Your task to perform on an android device: Clear all items from cart on amazon.com. Add razer blade to the cart on amazon.com Image 0: 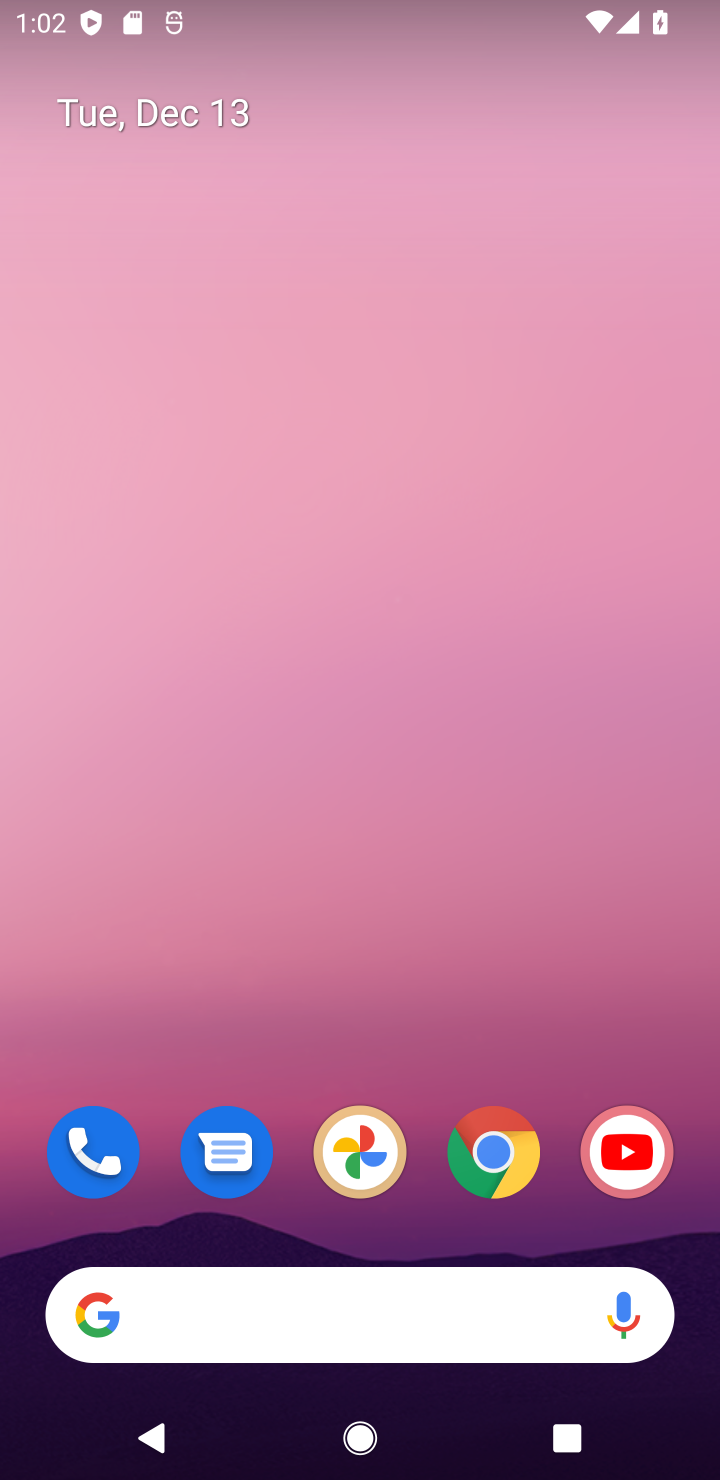
Step 0: drag from (408, 1289) to (501, 559)
Your task to perform on an android device: Clear all items from cart on amazon.com. Add razer blade to the cart on amazon.com Image 1: 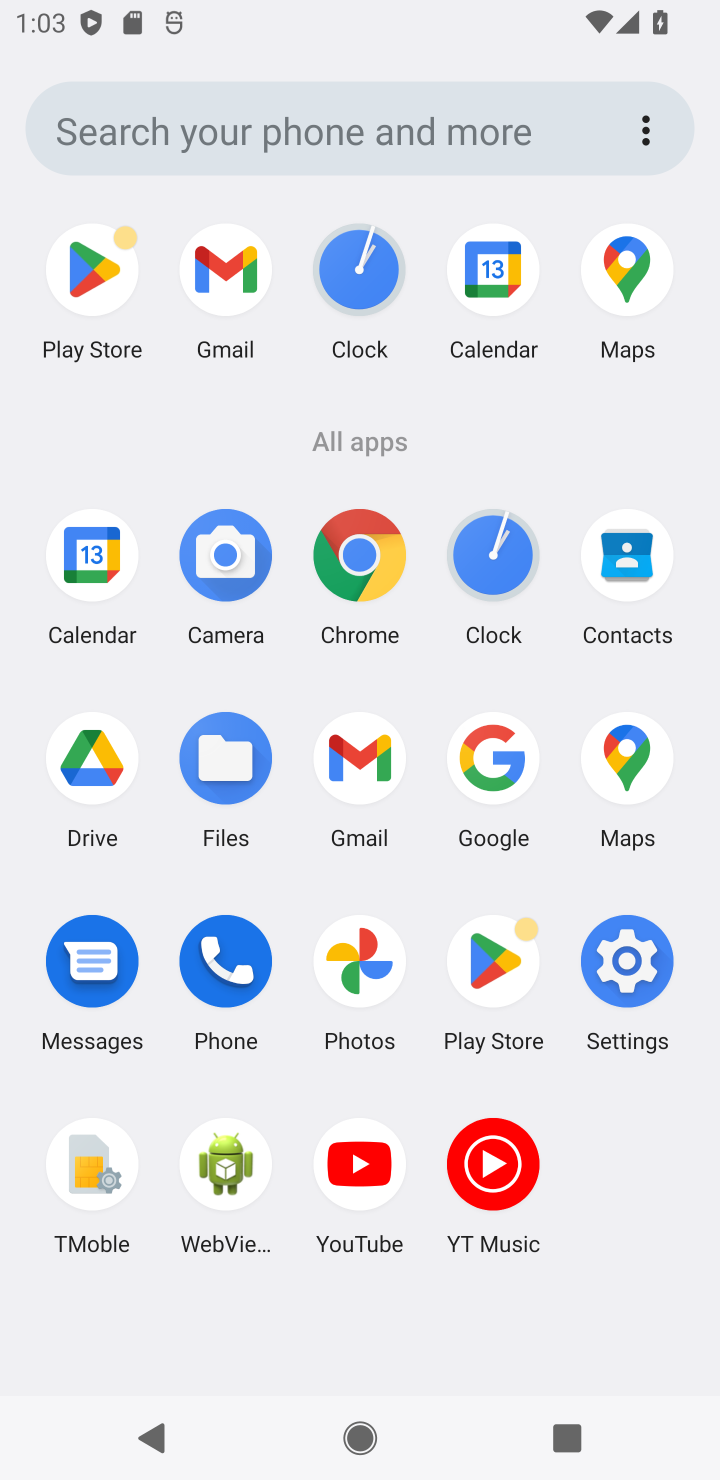
Step 1: click (499, 770)
Your task to perform on an android device: Clear all items from cart on amazon.com. Add razer blade to the cart on amazon.com Image 2: 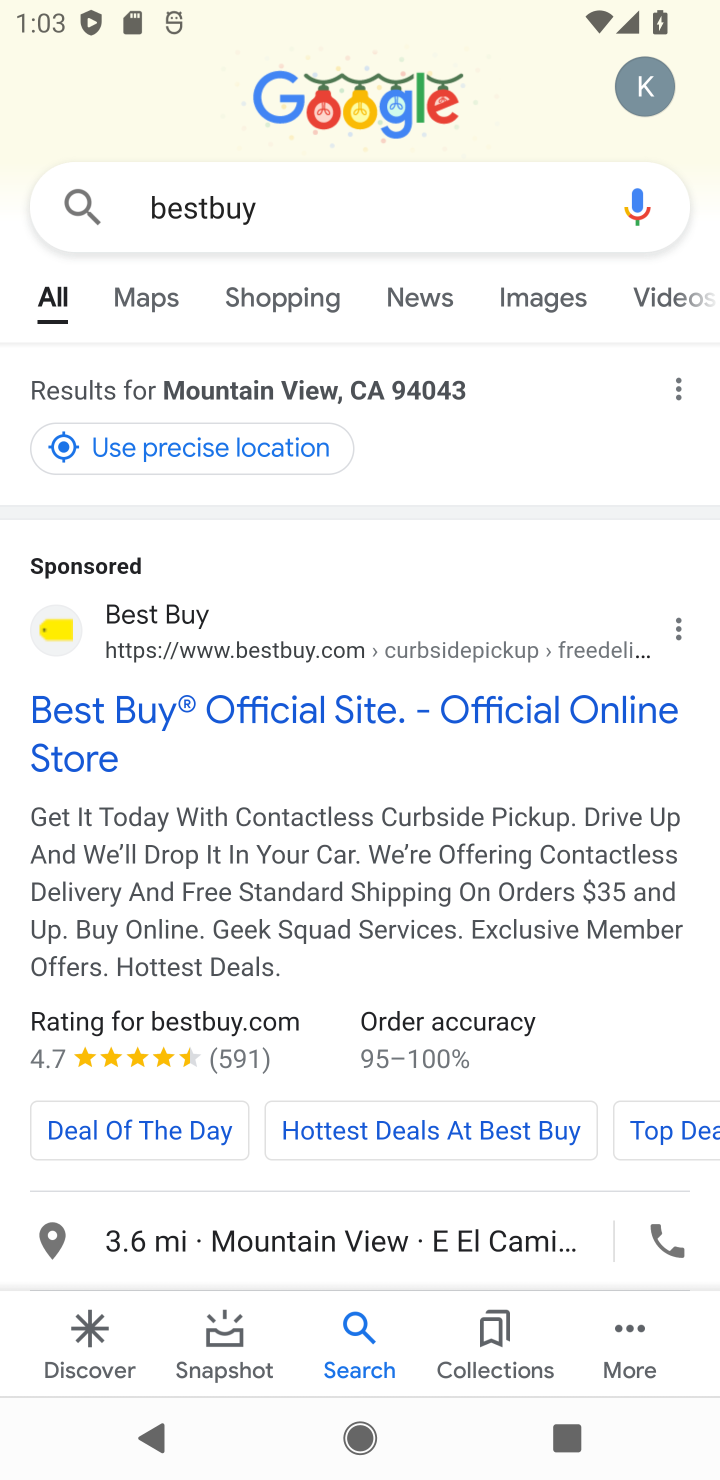
Step 2: click (218, 196)
Your task to perform on an android device: Clear all items from cart on amazon.com. Add razer blade to the cart on amazon.com Image 3: 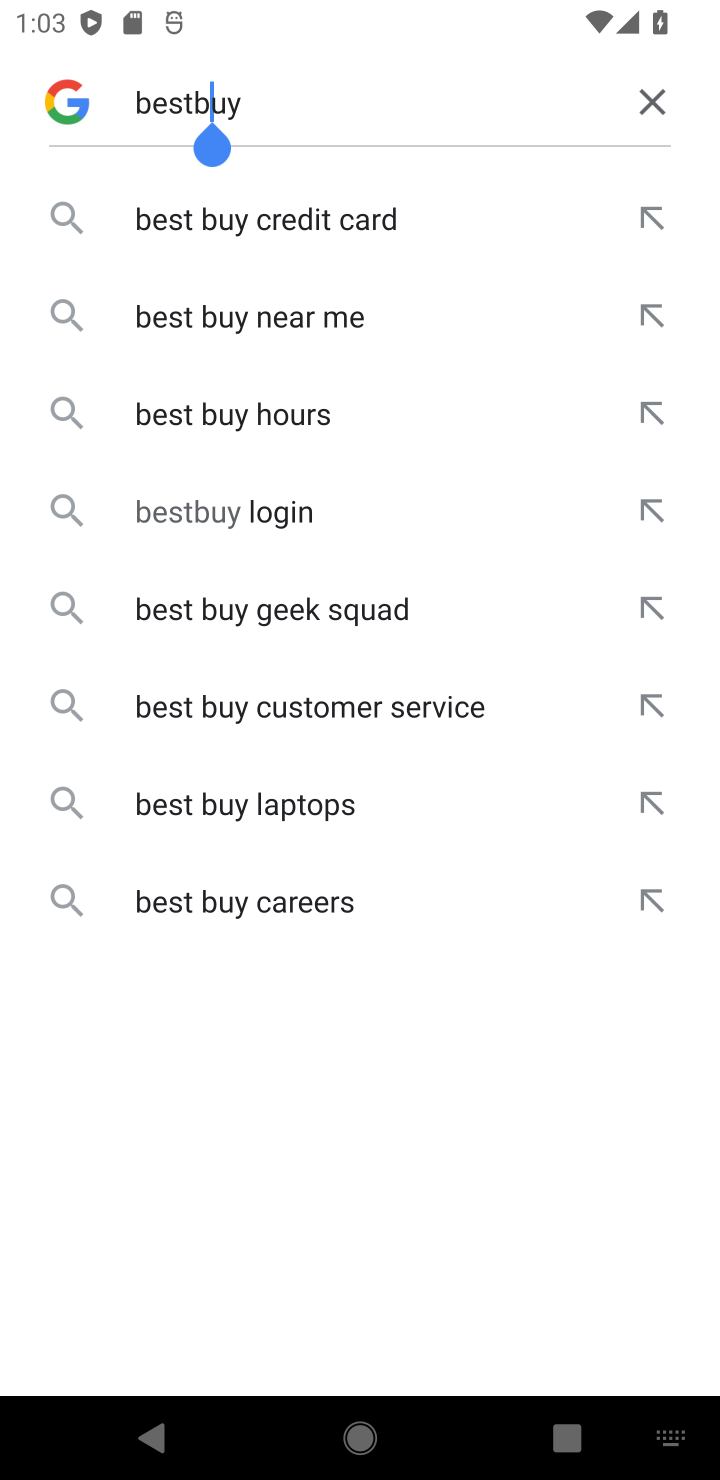
Step 3: click (647, 109)
Your task to perform on an android device: Clear all items from cart on amazon.com. Add razer blade to the cart on amazon.com Image 4: 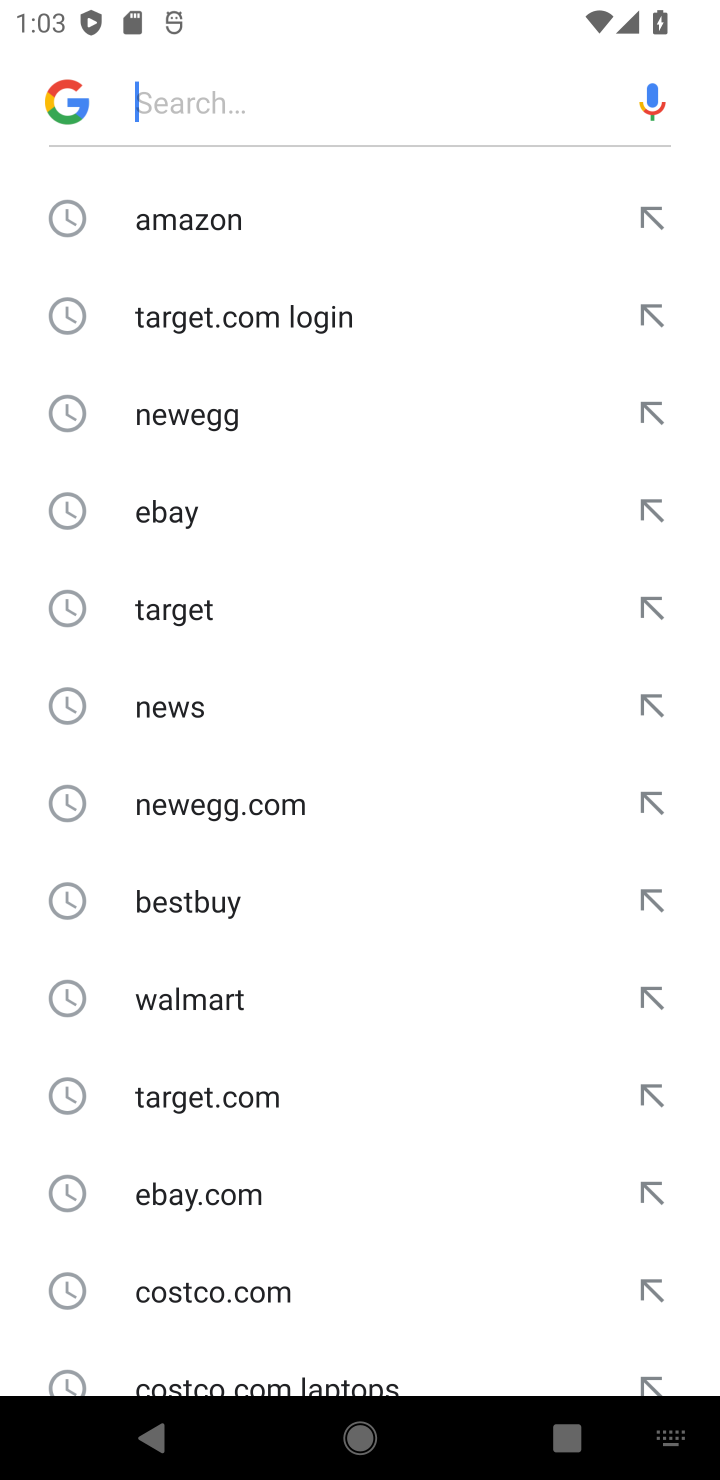
Step 4: click (171, 221)
Your task to perform on an android device: Clear all items from cart on amazon.com. Add razer blade to the cart on amazon.com Image 5: 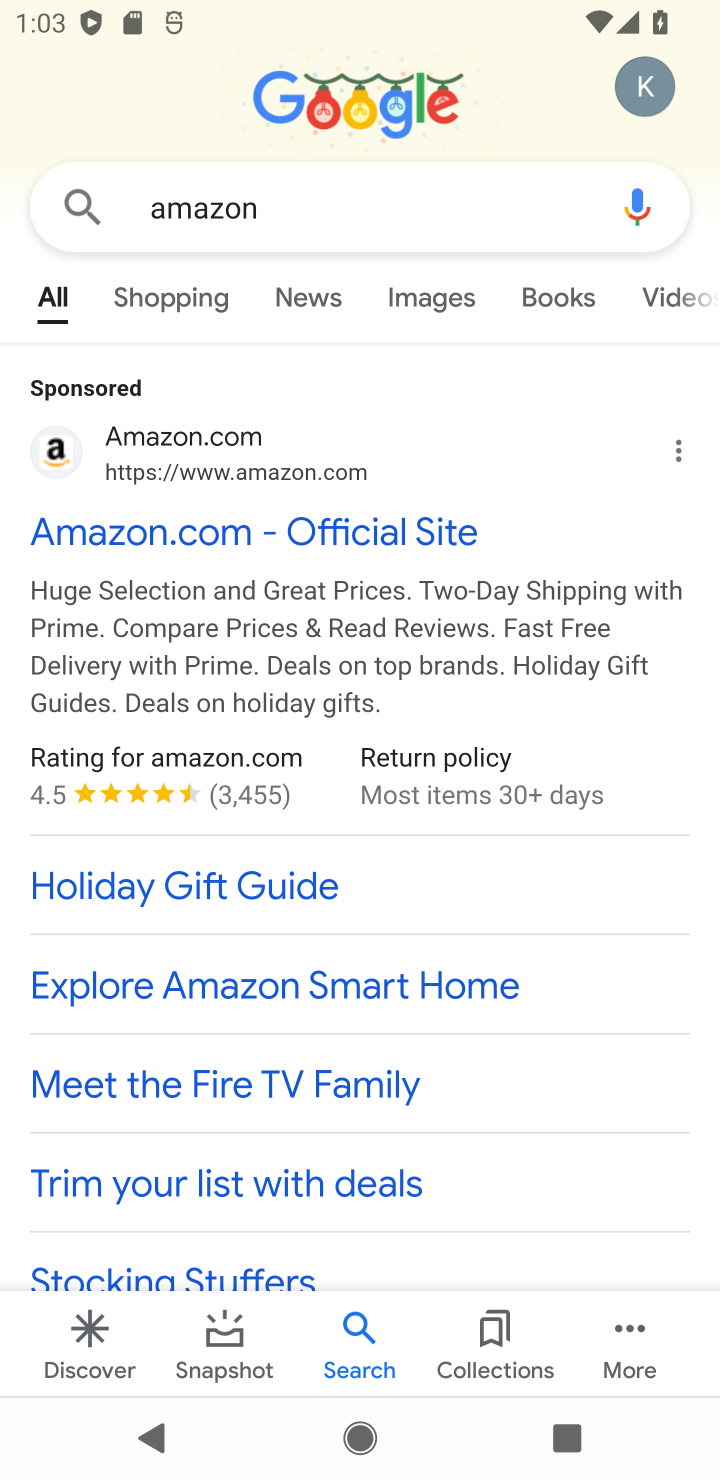
Step 5: click (181, 538)
Your task to perform on an android device: Clear all items from cart on amazon.com. Add razer blade to the cart on amazon.com Image 6: 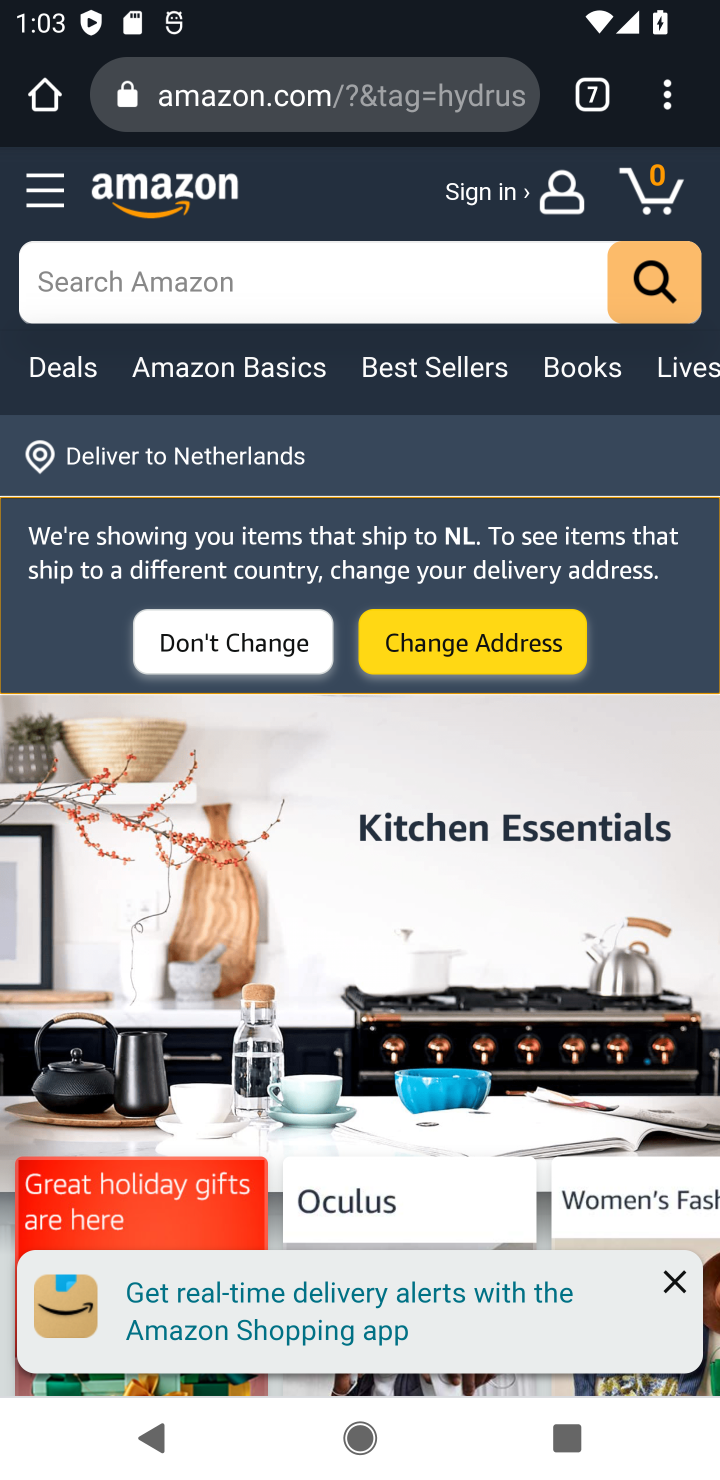
Step 6: click (315, 283)
Your task to perform on an android device: Clear all items from cart on amazon.com. Add razer blade to the cart on amazon.com Image 7: 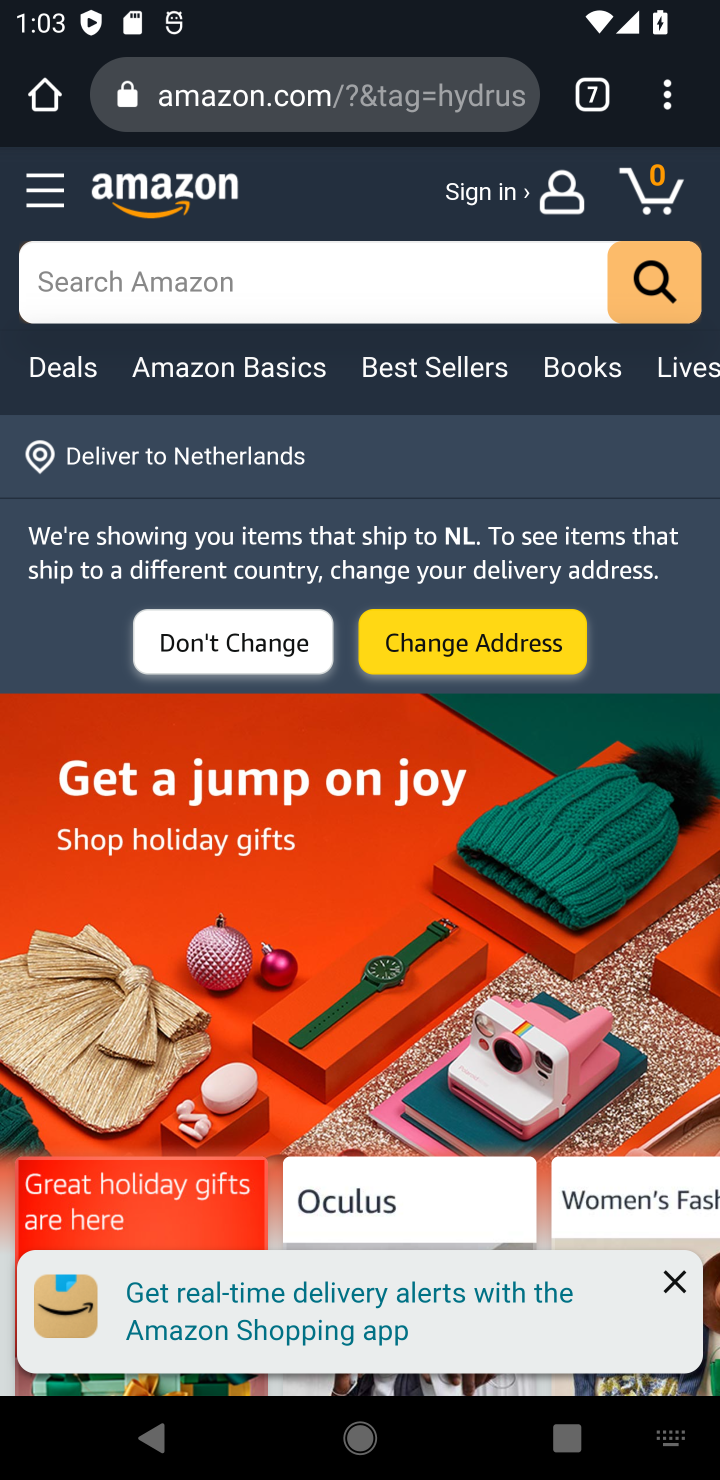
Step 7: type "razer blade"
Your task to perform on an android device: Clear all items from cart on amazon.com. Add razer blade to the cart on amazon.com Image 8: 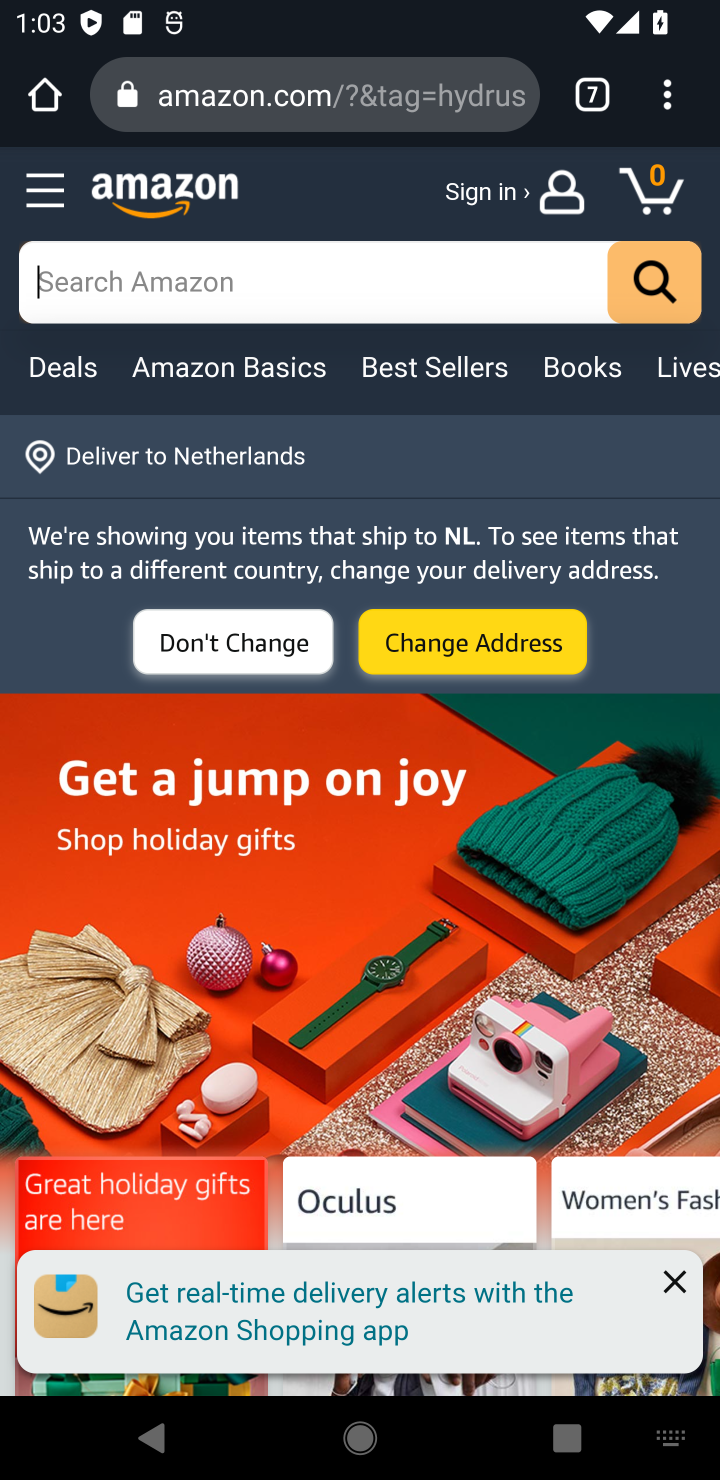
Step 8: click (681, 279)
Your task to perform on an android device: Clear all items from cart on amazon.com. Add razer blade to the cart on amazon.com Image 9: 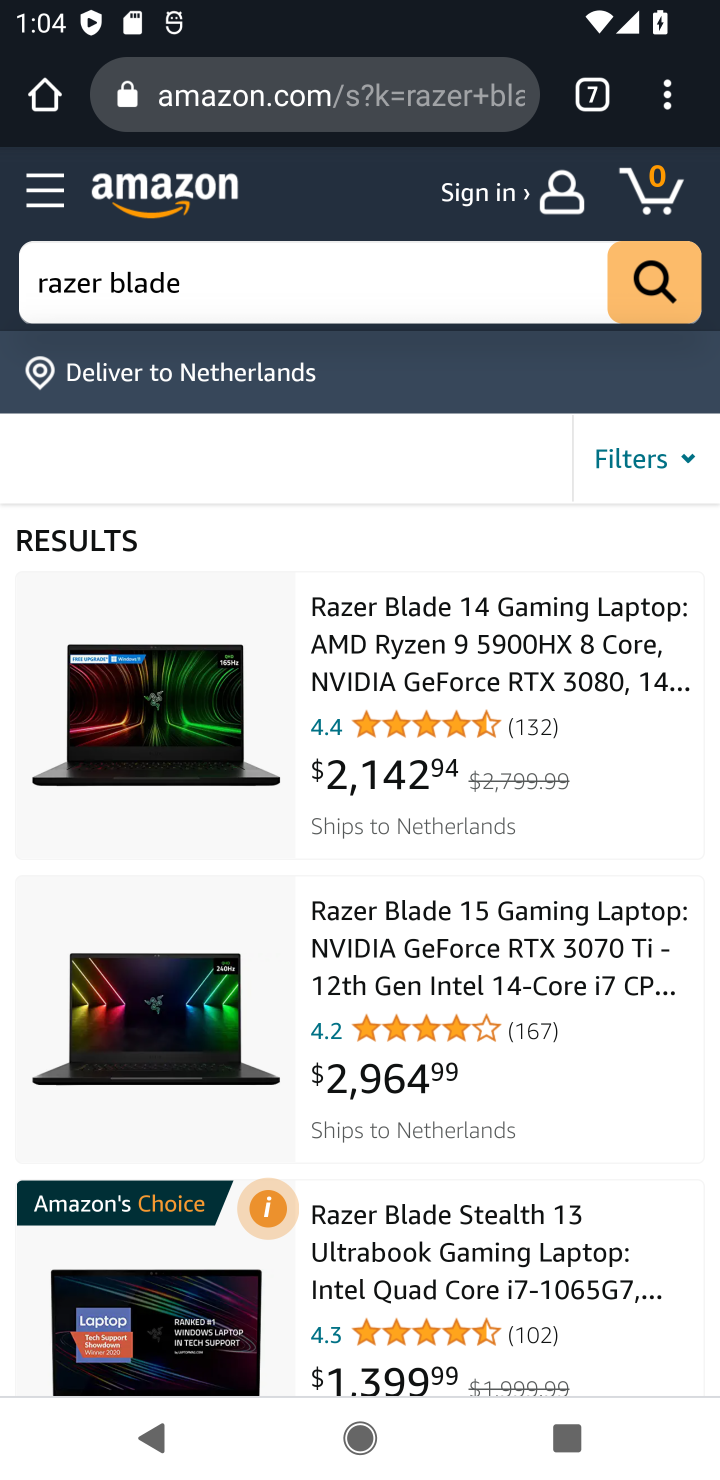
Step 9: click (432, 633)
Your task to perform on an android device: Clear all items from cart on amazon.com. Add razer blade to the cart on amazon.com Image 10: 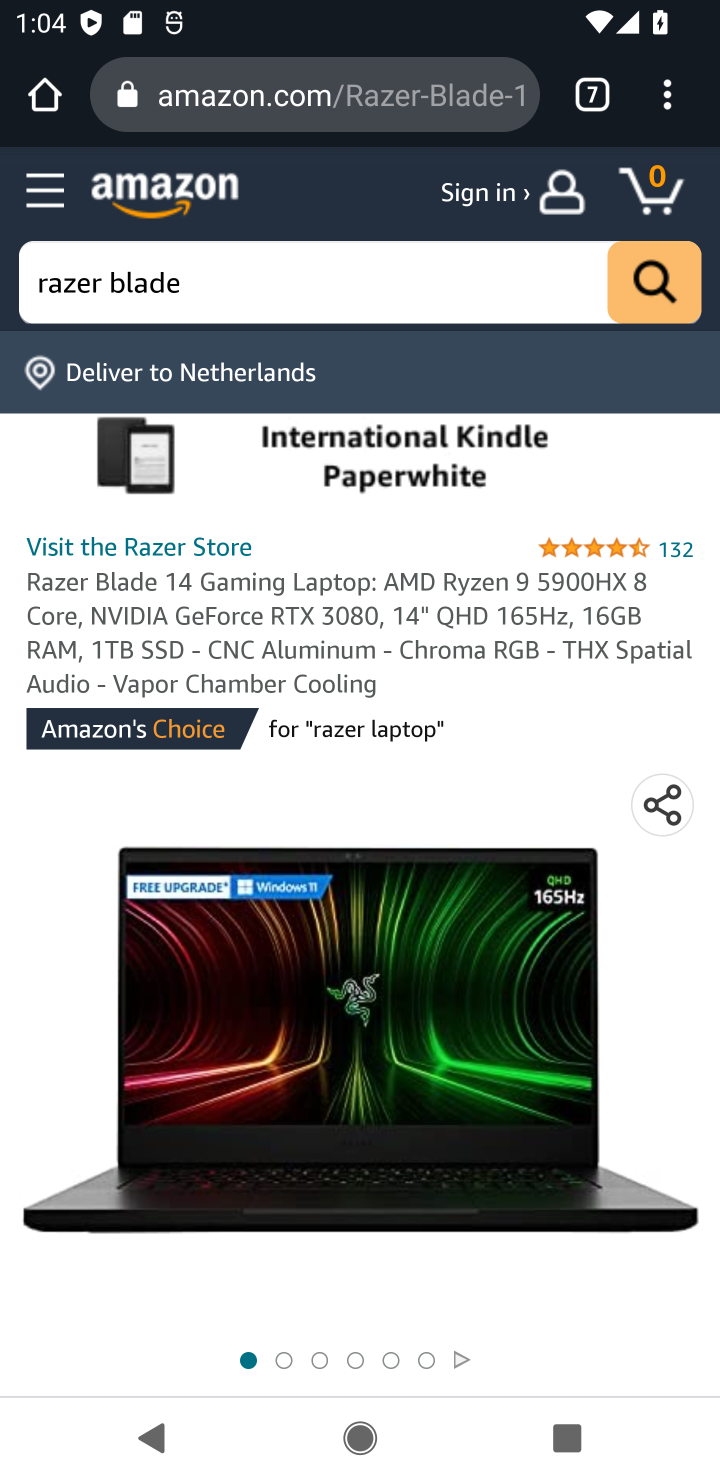
Step 10: click (400, 365)
Your task to perform on an android device: Clear all items from cart on amazon.com. Add razer blade to the cart on amazon.com Image 11: 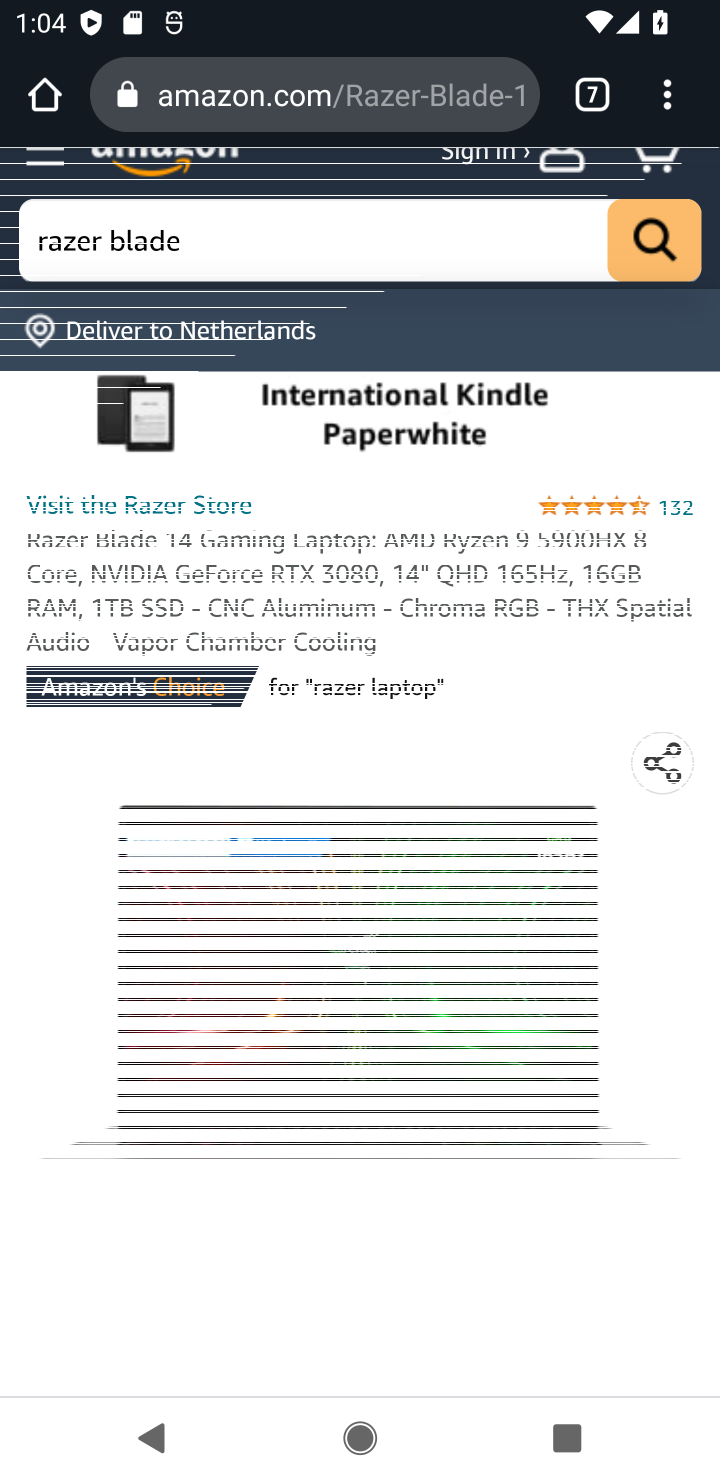
Step 11: drag from (508, 924) to (508, 385)
Your task to perform on an android device: Clear all items from cart on amazon.com. Add razer blade to the cart on amazon.com Image 12: 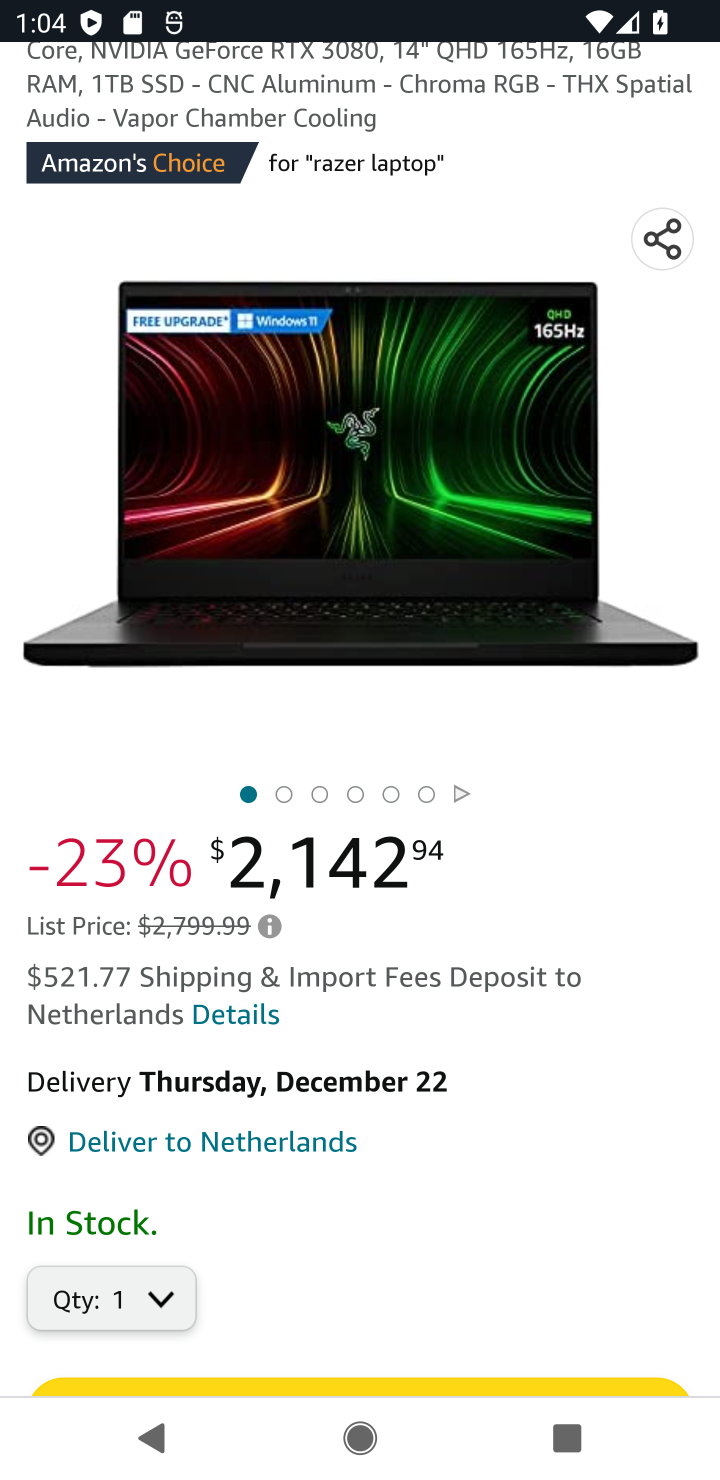
Step 12: drag from (446, 1167) to (465, 439)
Your task to perform on an android device: Clear all items from cart on amazon.com. Add razer blade to the cart on amazon.com Image 13: 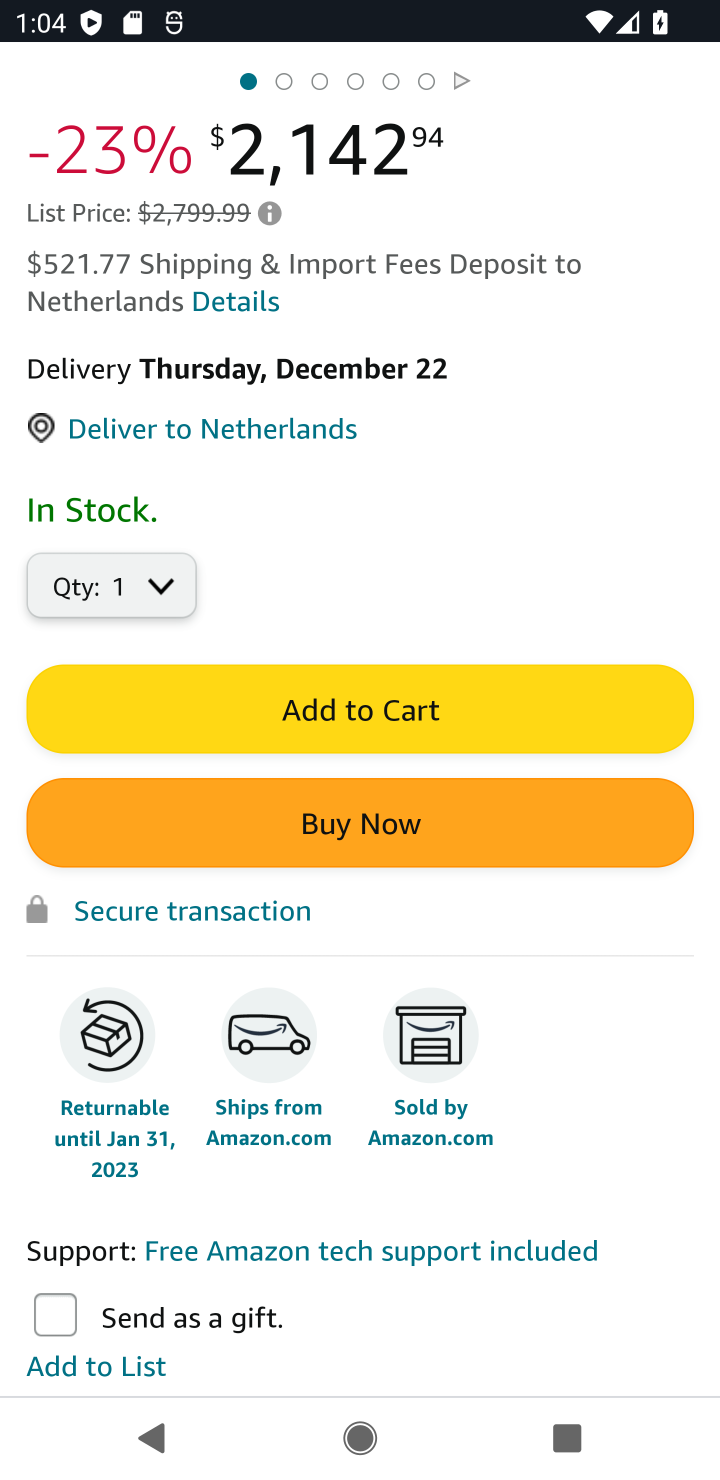
Step 13: click (326, 696)
Your task to perform on an android device: Clear all items from cart on amazon.com. Add razer blade to the cart on amazon.com Image 14: 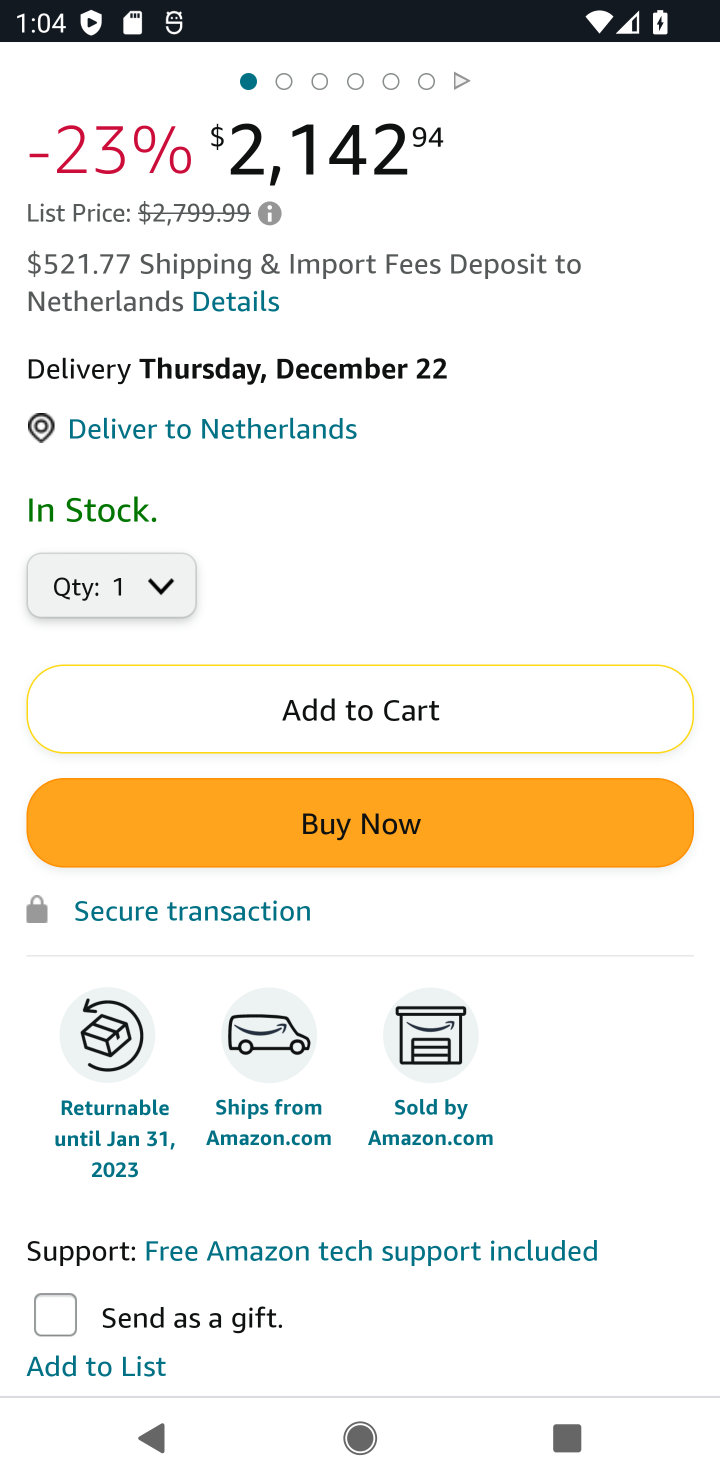
Step 14: task complete